Your task to perform on an android device: Go to settings Image 0: 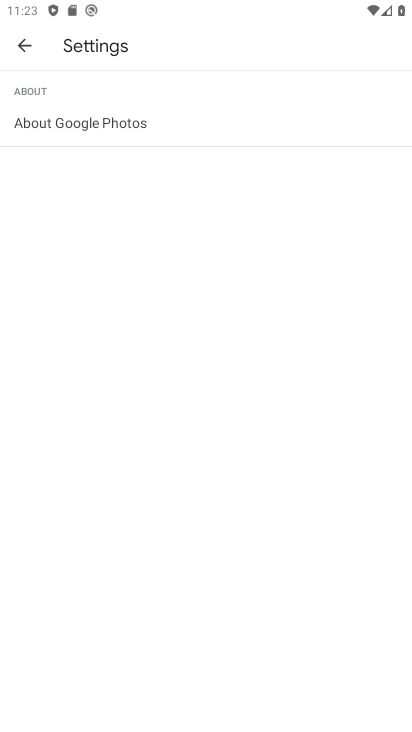
Step 0: press home button
Your task to perform on an android device: Go to settings Image 1: 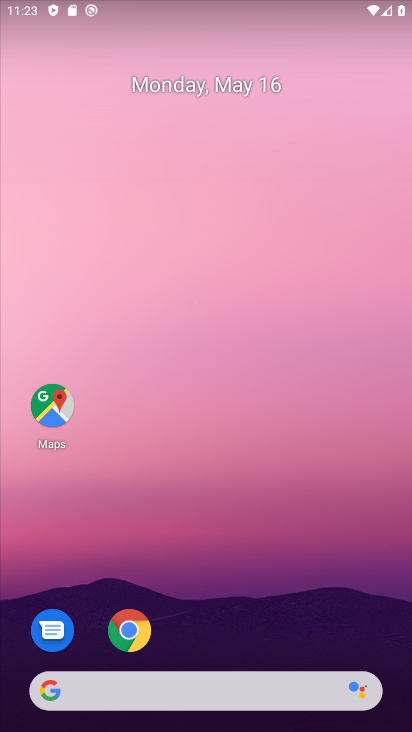
Step 1: drag from (186, 670) to (321, 182)
Your task to perform on an android device: Go to settings Image 2: 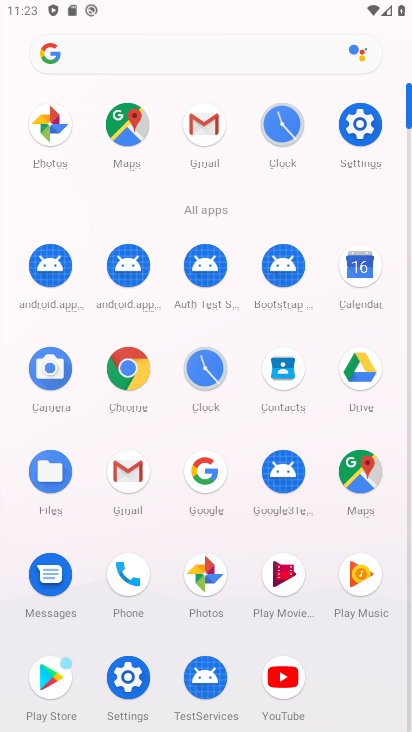
Step 2: click (132, 677)
Your task to perform on an android device: Go to settings Image 3: 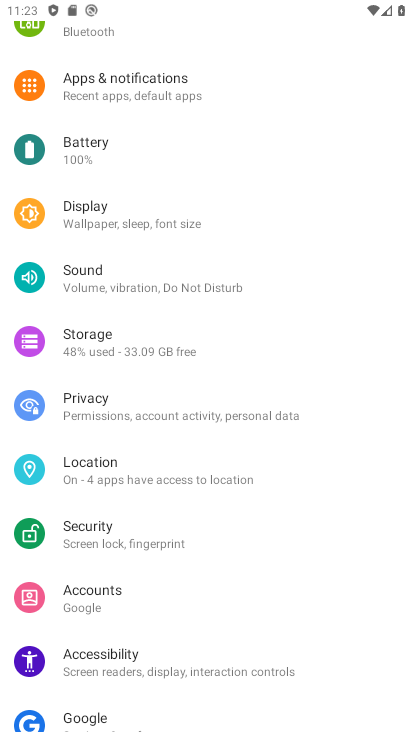
Step 3: task complete